Your task to perform on an android device: Turn on the flashlight Image 0: 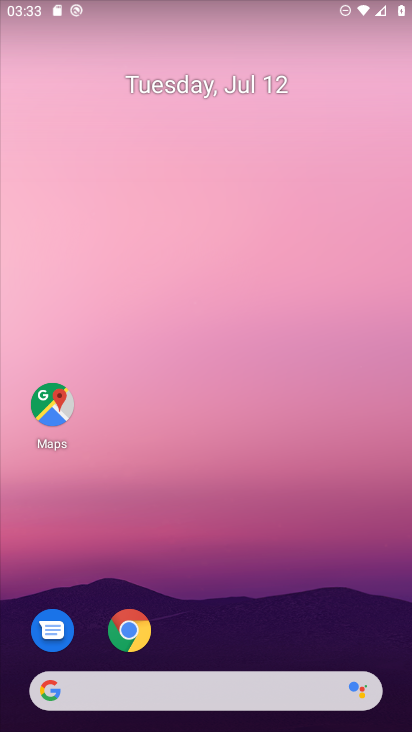
Step 0: drag from (218, 23) to (195, 411)
Your task to perform on an android device: Turn on the flashlight Image 1: 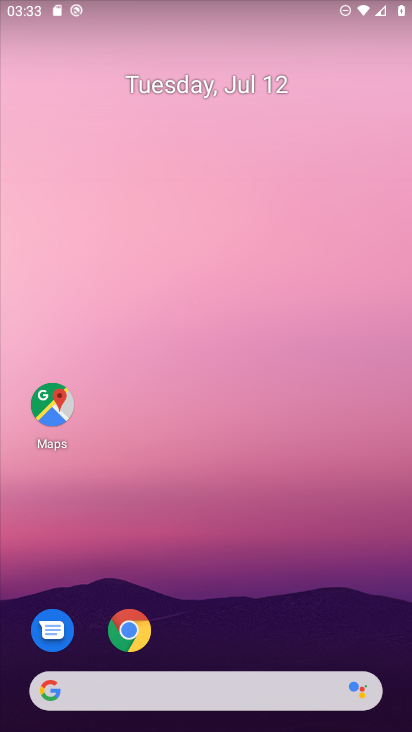
Step 1: drag from (231, 40) to (239, 477)
Your task to perform on an android device: Turn on the flashlight Image 2: 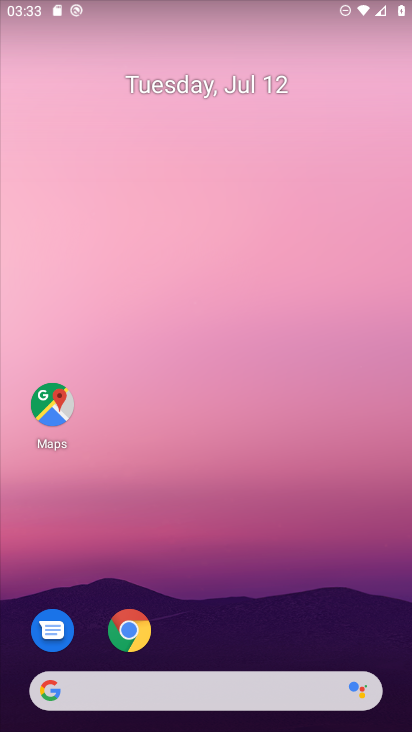
Step 2: drag from (243, 9) to (236, 499)
Your task to perform on an android device: Turn on the flashlight Image 3: 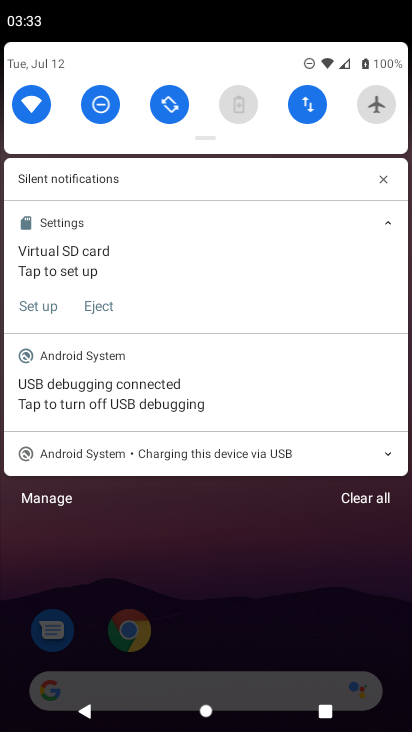
Step 3: drag from (208, 136) to (178, 432)
Your task to perform on an android device: Turn on the flashlight Image 4: 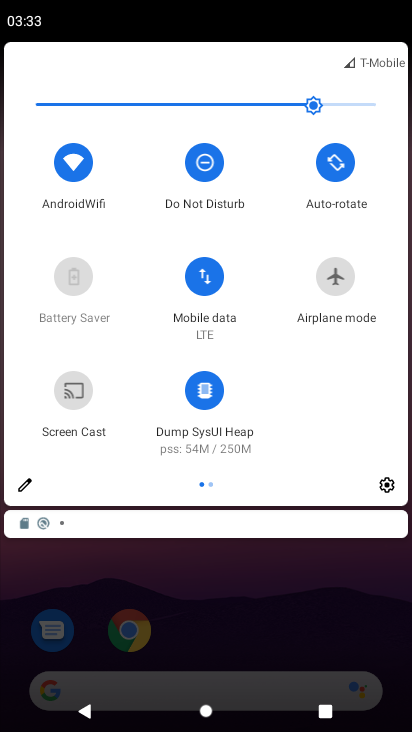
Step 4: click (20, 481)
Your task to perform on an android device: Turn on the flashlight Image 5: 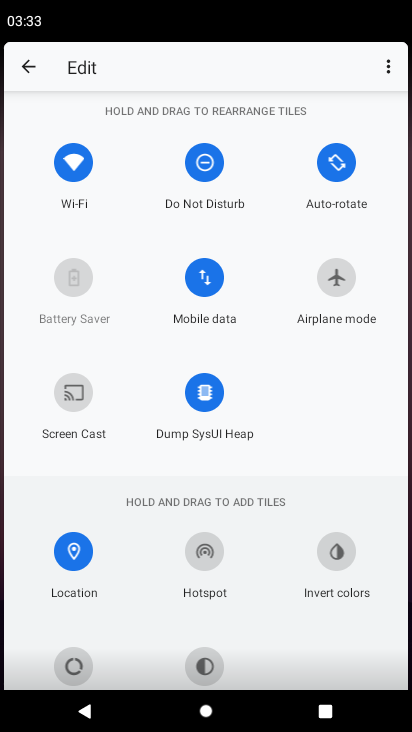
Step 5: task complete